Your task to perform on an android device: open app "Lyft - Rideshare, Bikes, Scooters & Transit" (install if not already installed) and enter user name: "deliberating@gmail.com" and password: "preyed" Image 0: 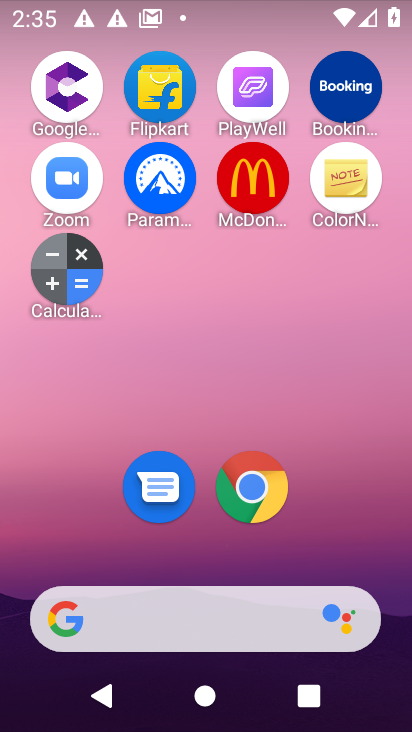
Step 0: drag from (194, 622) to (312, 41)
Your task to perform on an android device: open app "Lyft - Rideshare, Bikes, Scooters & Transit" (install if not already installed) and enter user name: "deliberating@gmail.com" and password: "preyed" Image 1: 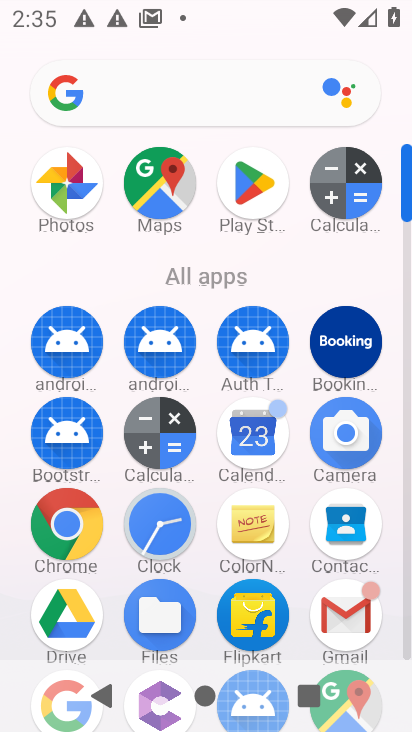
Step 1: click (256, 176)
Your task to perform on an android device: open app "Lyft - Rideshare, Bikes, Scooters & Transit" (install if not already installed) and enter user name: "deliberating@gmail.com" and password: "preyed" Image 2: 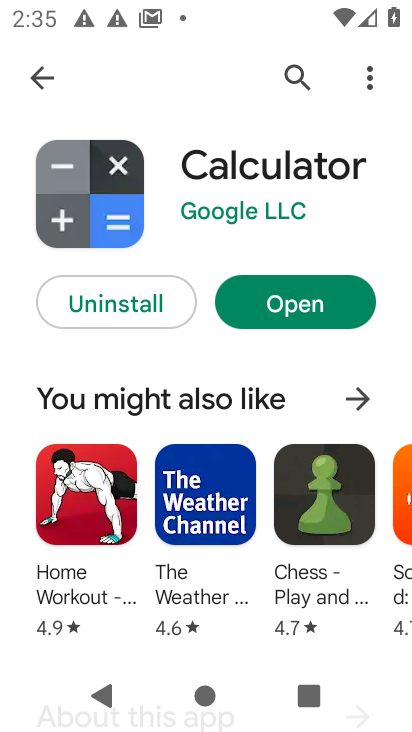
Step 2: press back button
Your task to perform on an android device: open app "Lyft - Rideshare, Bikes, Scooters & Transit" (install if not already installed) and enter user name: "deliberating@gmail.com" and password: "preyed" Image 3: 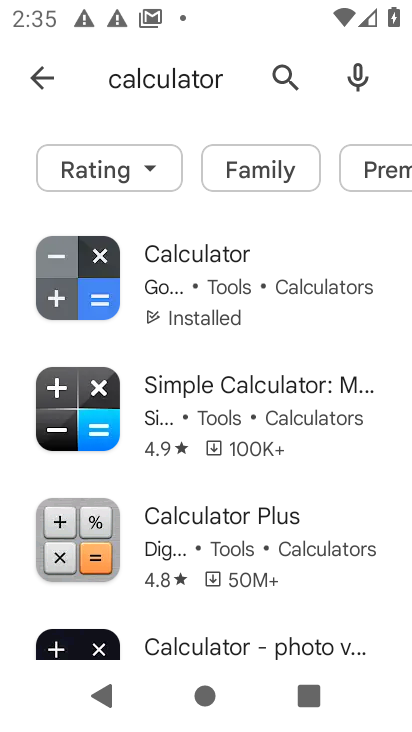
Step 3: press back button
Your task to perform on an android device: open app "Lyft - Rideshare, Bikes, Scooters & Transit" (install if not already installed) and enter user name: "deliberating@gmail.com" and password: "preyed" Image 4: 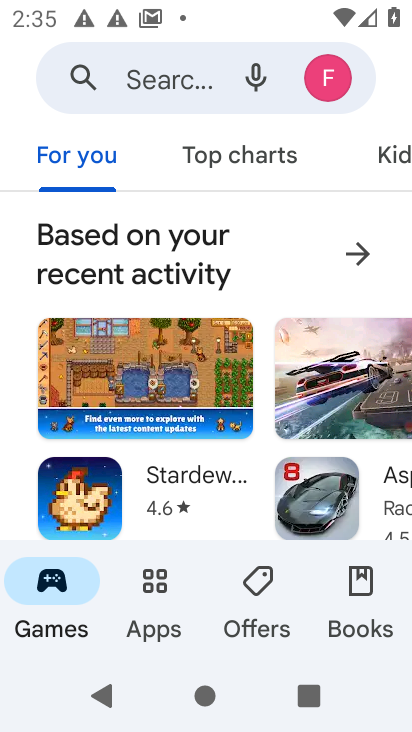
Step 4: click (167, 92)
Your task to perform on an android device: open app "Lyft - Rideshare, Bikes, Scooters & Transit" (install if not already installed) and enter user name: "deliberating@gmail.com" and password: "preyed" Image 5: 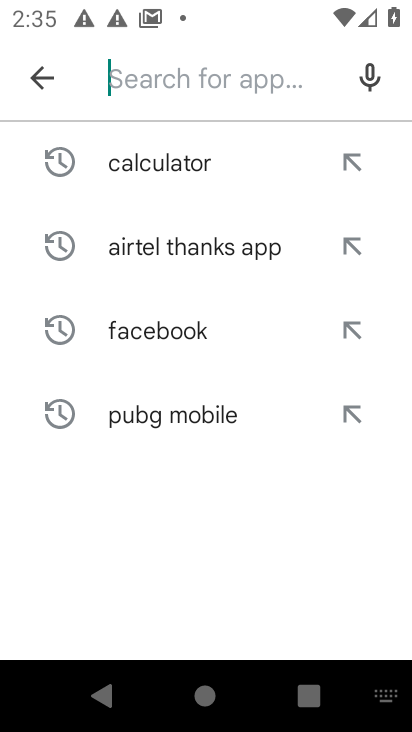
Step 5: type "Lyft - Rideshare, Bikes, Scooters & Transit"
Your task to perform on an android device: open app "Lyft - Rideshare, Bikes, Scooters & Transit" (install if not already installed) and enter user name: "deliberating@gmail.com" and password: "preyed" Image 6: 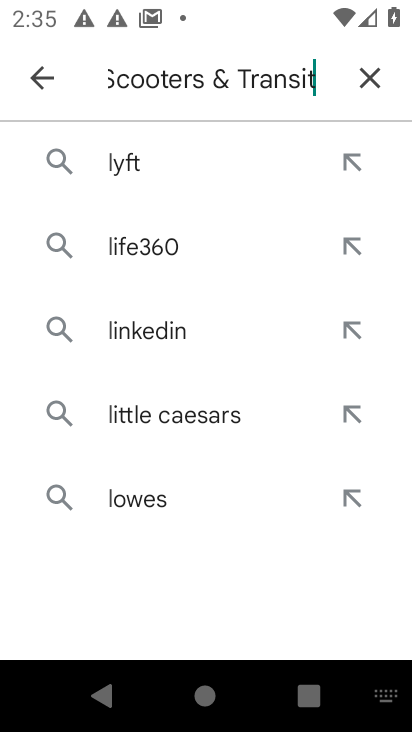
Step 6: type ""
Your task to perform on an android device: open app "Lyft - Rideshare, Bikes, Scooters & Transit" (install if not already installed) and enter user name: "deliberating@gmail.com" and password: "preyed" Image 7: 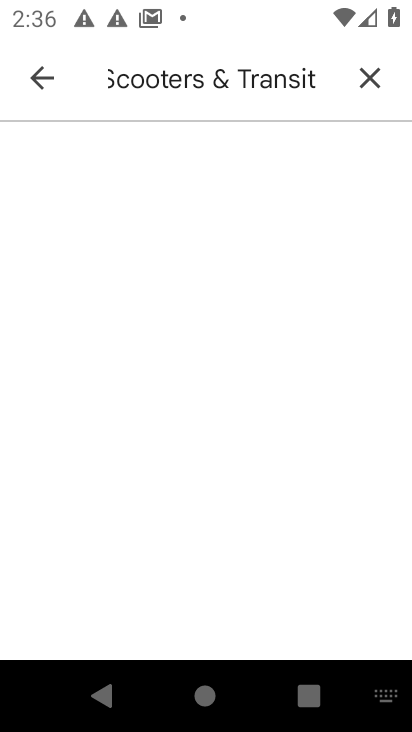
Step 7: click (365, 88)
Your task to perform on an android device: open app "Lyft - Rideshare, Bikes, Scooters & Transit" (install if not already installed) and enter user name: "deliberating@gmail.com" and password: "preyed" Image 8: 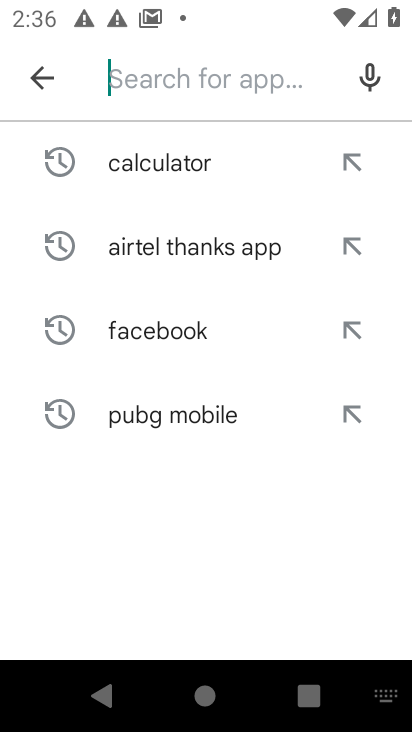
Step 8: click (141, 77)
Your task to perform on an android device: open app "Lyft - Rideshare, Bikes, Scooters & Transit" (install if not already installed) and enter user name: "deliberating@gmail.com" and password: "preyed" Image 9: 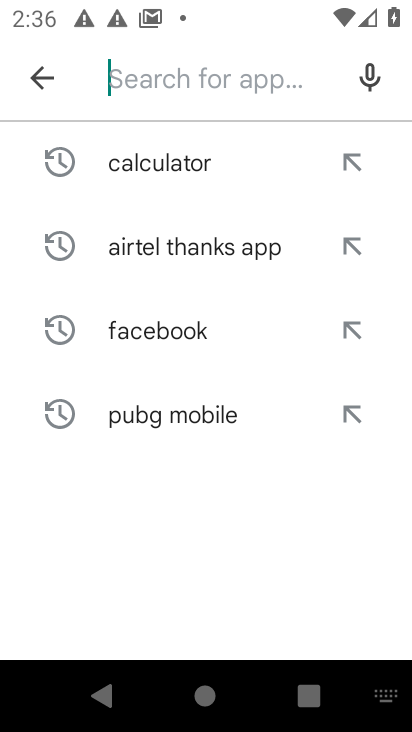
Step 9: type "Lyft "
Your task to perform on an android device: open app "Lyft - Rideshare, Bikes, Scooters & Transit" (install if not already installed) and enter user name: "deliberating@gmail.com" and password: "preyed" Image 10: 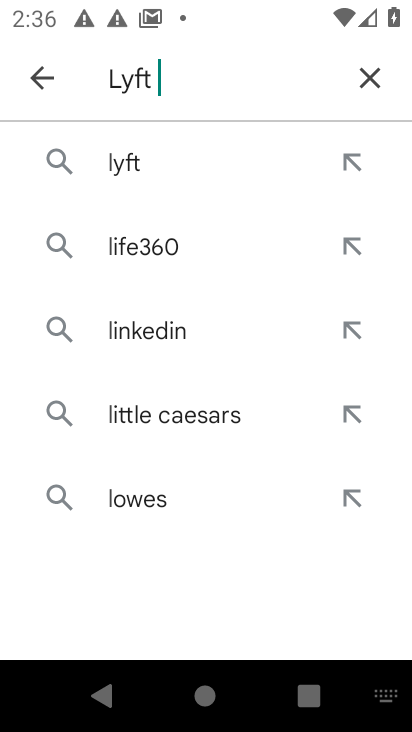
Step 10: type ""
Your task to perform on an android device: open app "Lyft - Rideshare, Bikes, Scooters & Transit" (install if not already installed) and enter user name: "deliberating@gmail.com" and password: "preyed" Image 11: 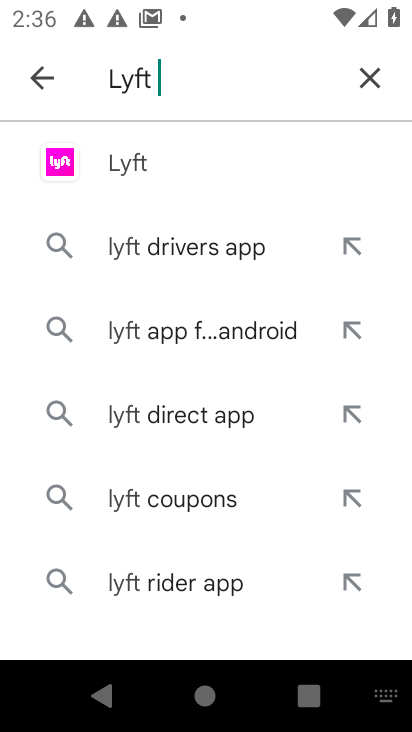
Step 11: click (122, 182)
Your task to perform on an android device: open app "Lyft - Rideshare, Bikes, Scooters & Transit" (install if not already installed) and enter user name: "deliberating@gmail.com" and password: "preyed" Image 12: 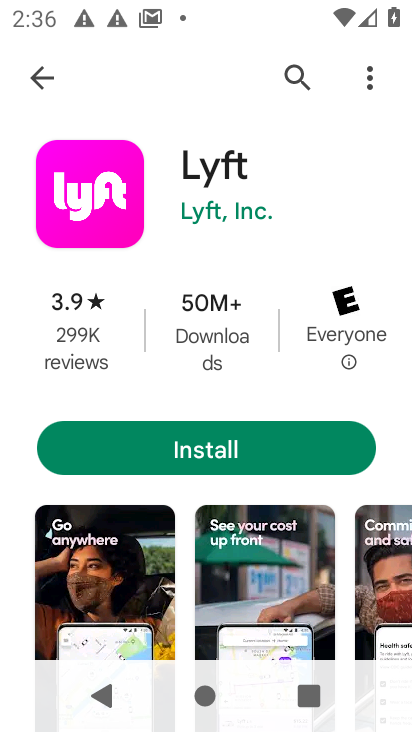
Step 12: click (211, 463)
Your task to perform on an android device: open app "Lyft - Rideshare, Bikes, Scooters & Transit" (install if not already installed) and enter user name: "deliberating@gmail.com" and password: "preyed" Image 13: 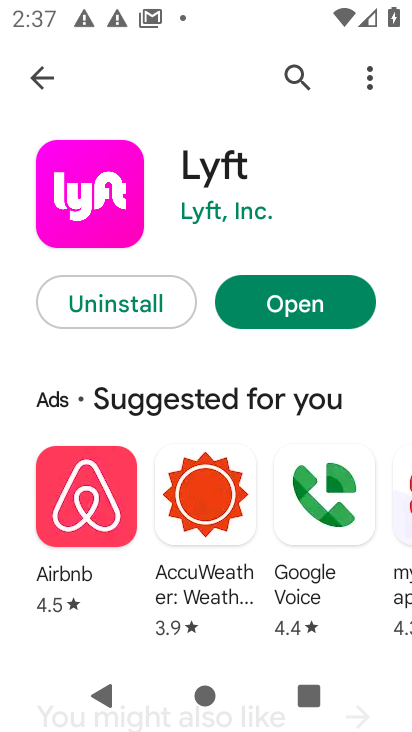
Step 13: click (301, 300)
Your task to perform on an android device: open app "Lyft - Rideshare, Bikes, Scooters & Transit" (install if not already installed) and enter user name: "deliberating@gmail.com" and password: "preyed" Image 14: 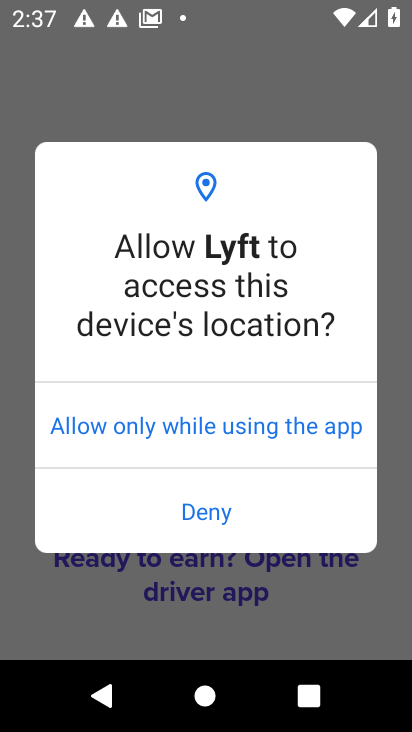
Step 14: click (214, 425)
Your task to perform on an android device: open app "Lyft - Rideshare, Bikes, Scooters & Transit" (install if not already installed) and enter user name: "deliberating@gmail.com" and password: "preyed" Image 15: 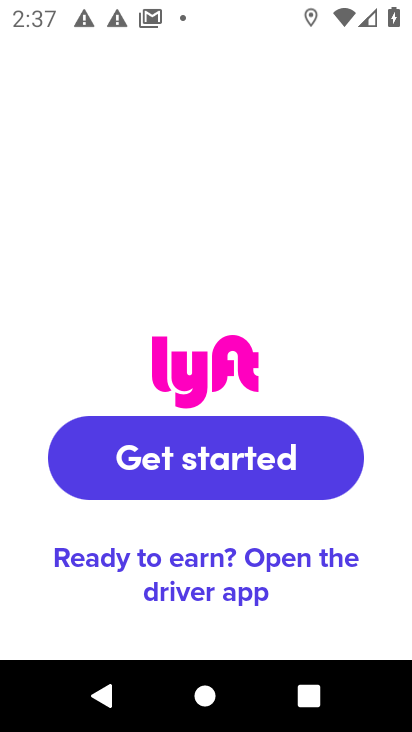
Step 15: click (214, 447)
Your task to perform on an android device: open app "Lyft - Rideshare, Bikes, Scooters & Transit" (install if not already installed) and enter user name: "deliberating@gmail.com" and password: "preyed" Image 16: 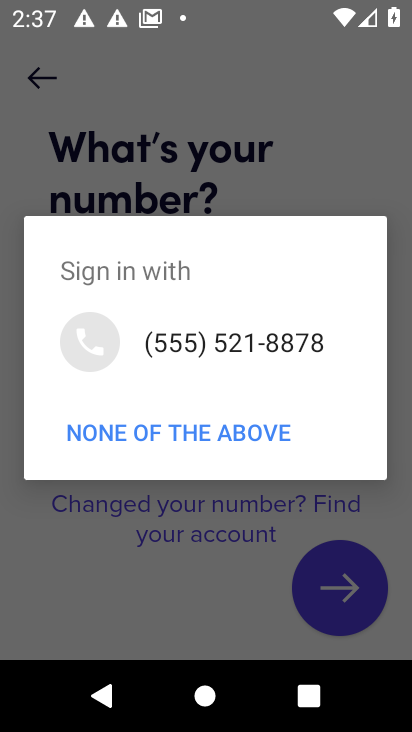
Step 16: click (214, 447)
Your task to perform on an android device: open app "Lyft - Rideshare, Bikes, Scooters & Transit" (install if not already installed) and enter user name: "deliberating@gmail.com" and password: "preyed" Image 17: 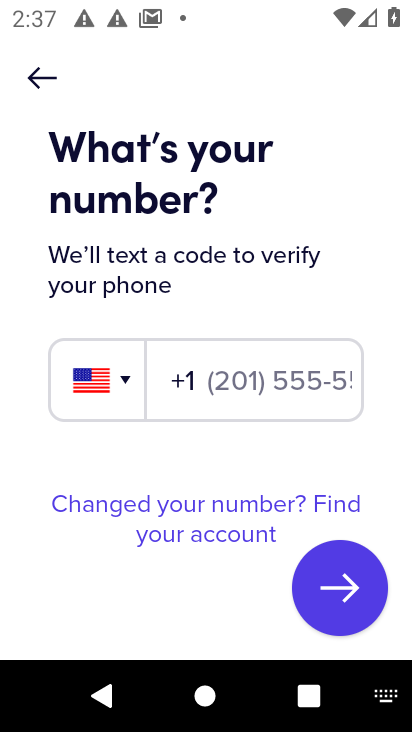
Step 17: click (353, 576)
Your task to perform on an android device: open app "Lyft - Rideshare, Bikes, Scooters & Transit" (install if not already installed) and enter user name: "deliberating@gmail.com" and password: "preyed" Image 18: 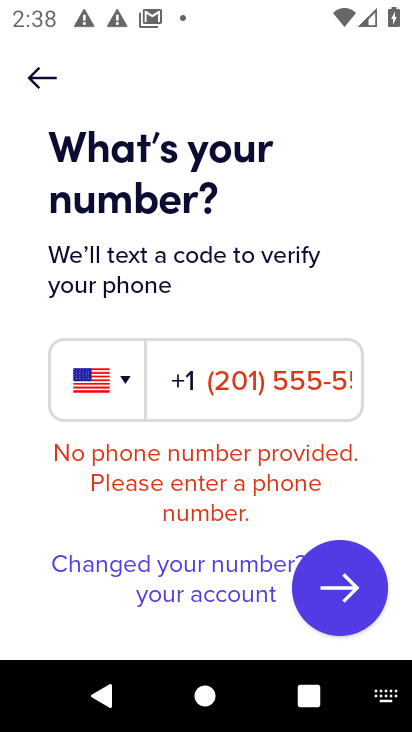
Step 18: task complete